Your task to perform on an android device: Open Google Chrome Image 0: 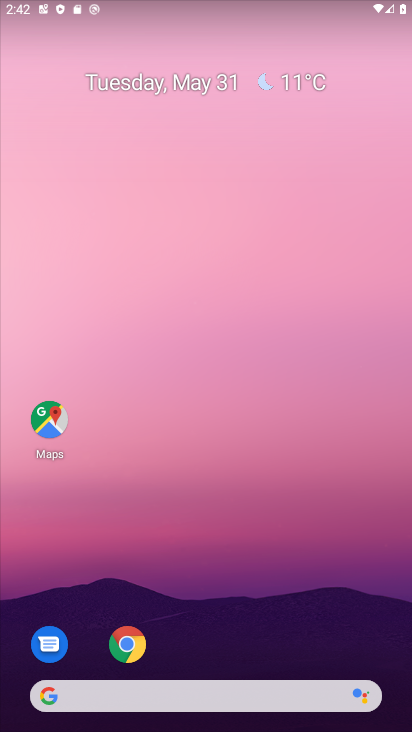
Step 0: click (127, 657)
Your task to perform on an android device: Open Google Chrome Image 1: 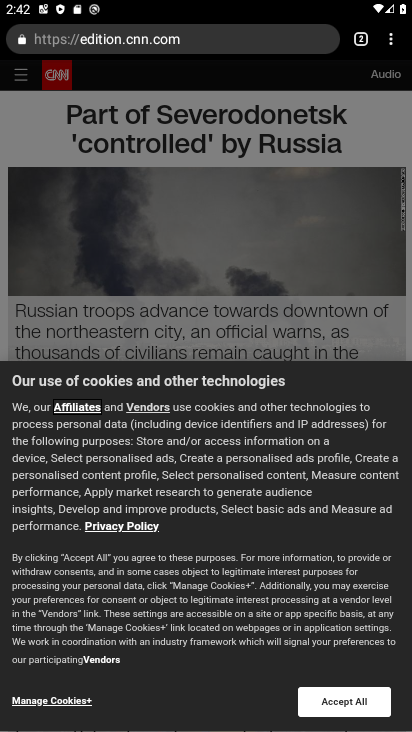
Step 1: task complete